Your task to perform on an android device: Open calendar and show me the second week of next month Image 0: 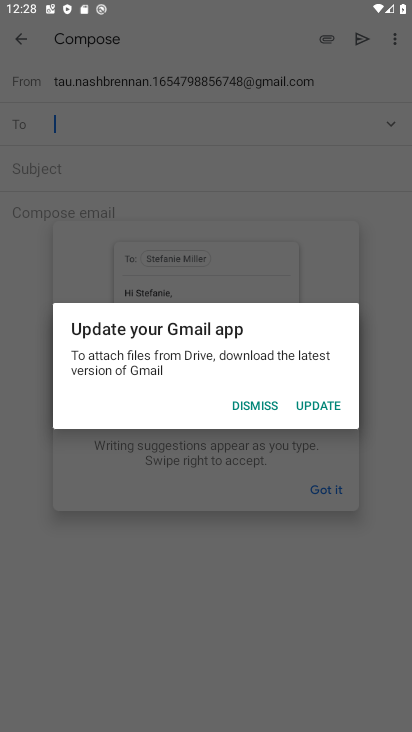
Step 0: press home button
Your task to perform on an android device: Open calendar and show me the second week of next month Image 1: 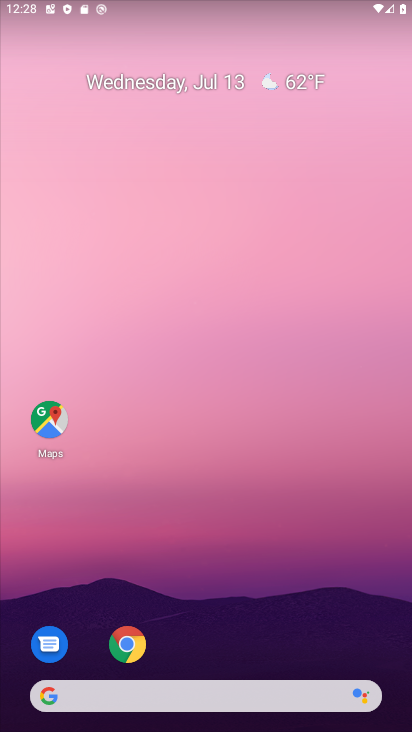
Step 1: drag from (196, 656) to (145, 286)
Your task to perform on an android device: Open calendar and show me the second week of next month Image 2: 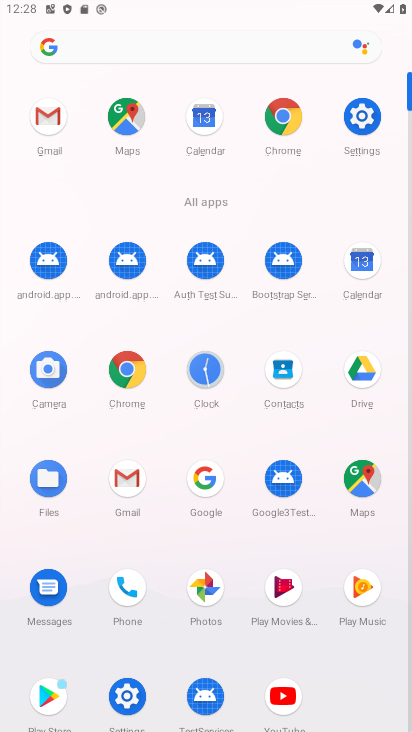
Step 2: click (357, 264)
Your task to perform on an android device: Open calendar and show me the second week of next month Image 3: 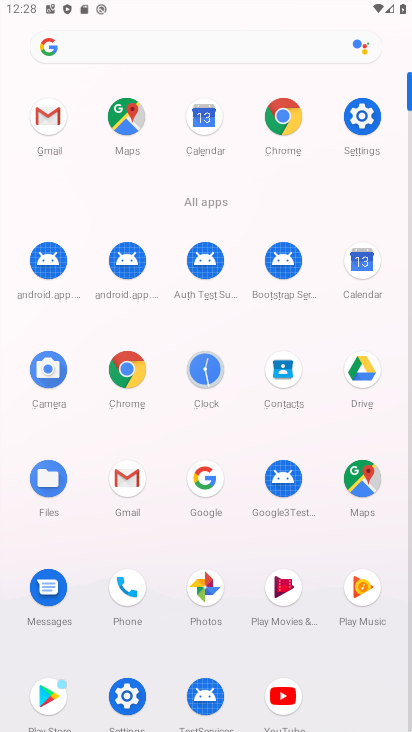
Step 3: click (357, 264)
Your task to perform on an android device: Open calendar and show me the second week of next month Image 4: 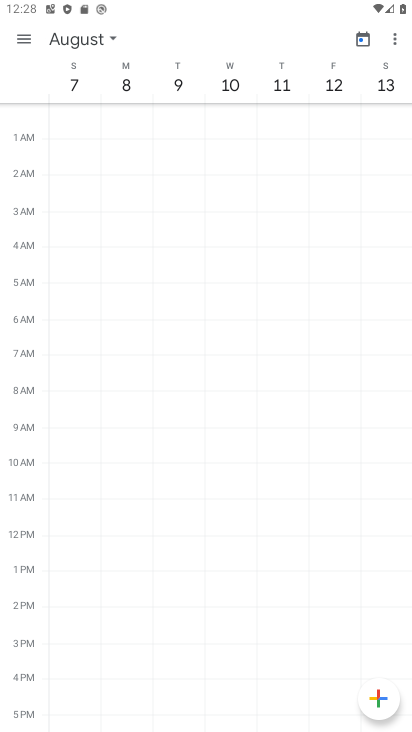
Step 4: task complete